Your task to perform on an android device: Go to internet settings Image 0: 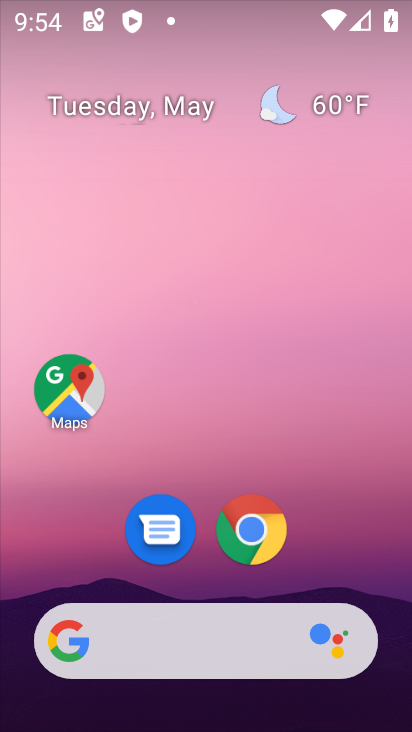
Step 0: drag from (211, 604) to (209, 327)
Your task to perform on an android device: Go to internet settings Image 1: 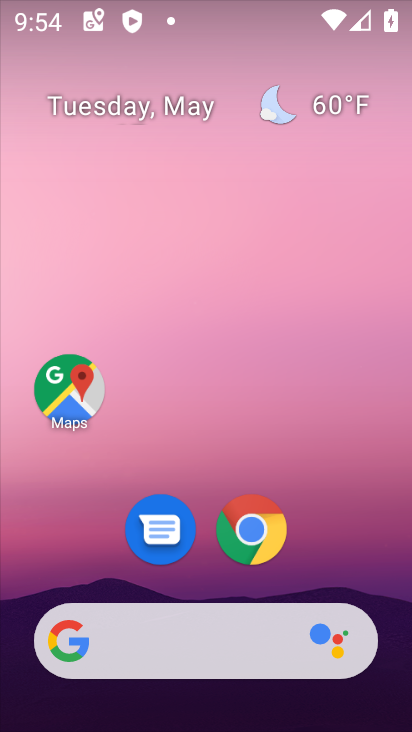
Step 1: drag from (236, 549) to (199, 153)
Your task to perform on an android device: Go to internet settings Image 2: 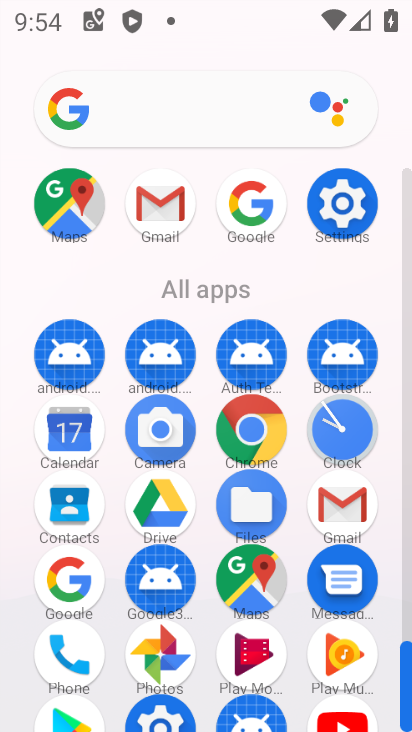
Step 2: click (341, 201)
Your task to perform on an android device: Go to internet settings Image 3: 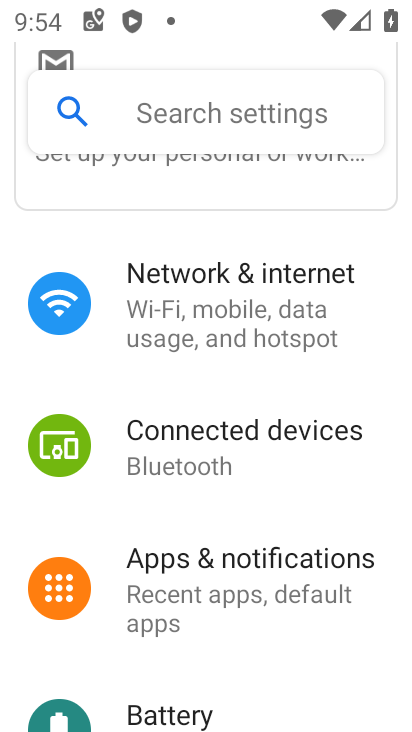
Step 3: click (199, 308)
Your task to perform on an android device: Go to internet settings Image 4: 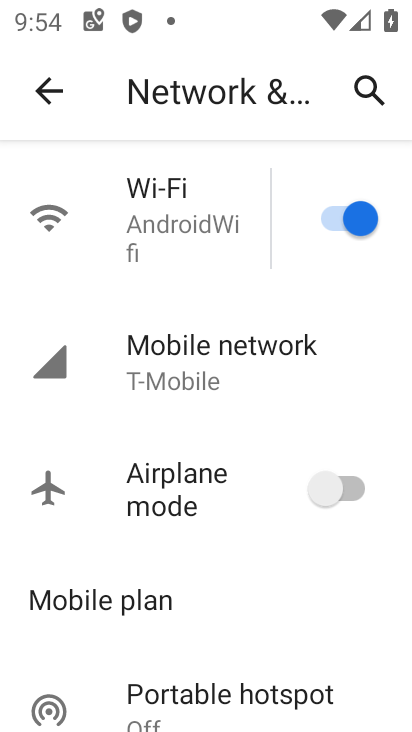
Step 4: click (155, 367)
Your task to perform on an android device: Go to internet settings Image 5: 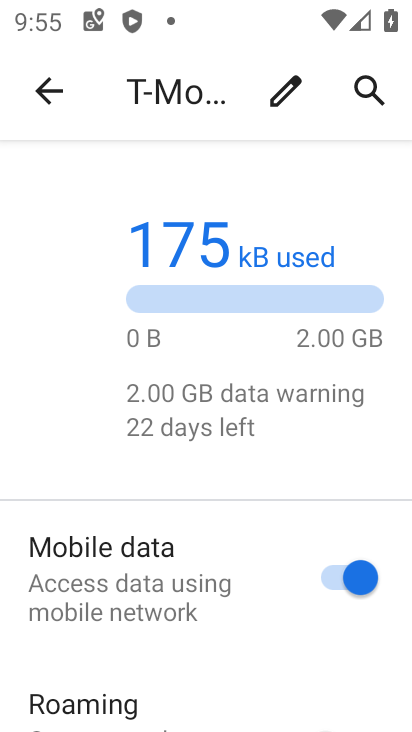
Step 5: drag from (137, 645) to (139, 227)
Your task to perform on an android device: Go to internet settings Image 6: 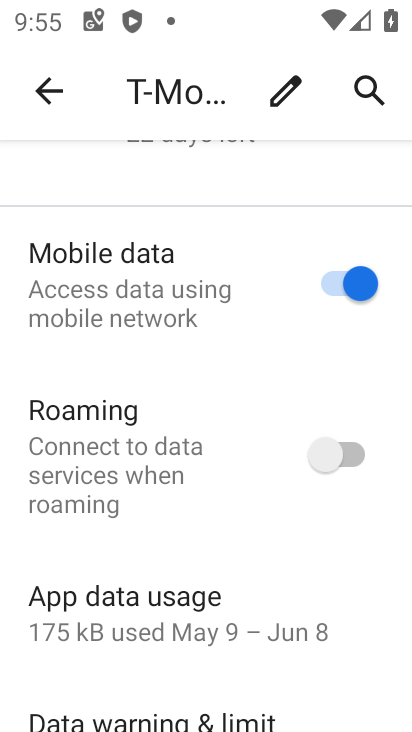
Step 6: click (36, 92)
Your task to perform on an android device: Go to internet settings Image 7: 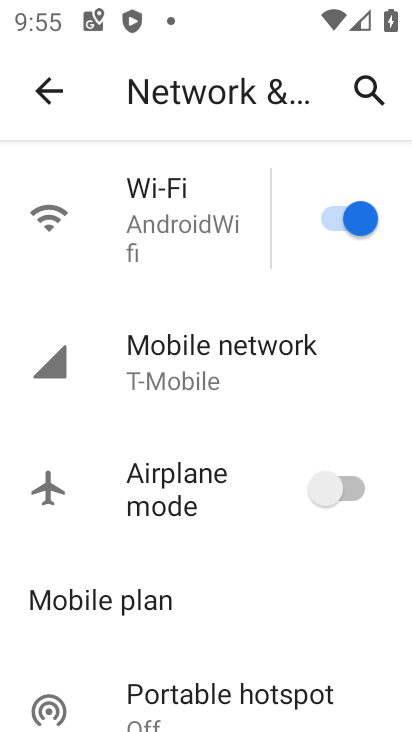
Step 7: task complete